Your task to perform on an android device: change notification settings in the gmail app Image 0: 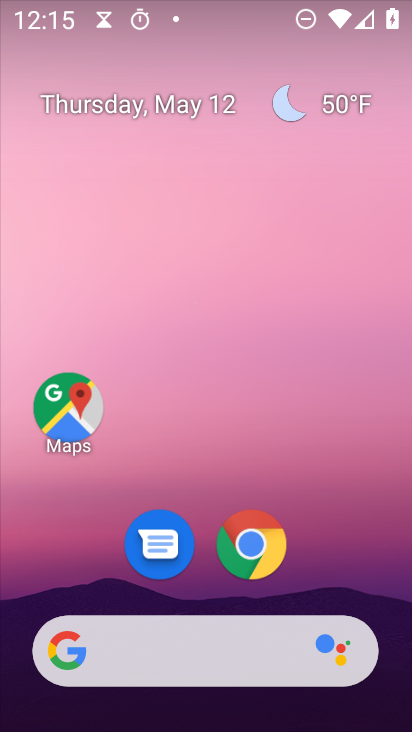
Step 0: drag from (211, 600) to (266, 176)
Your task to perform on an android device: change notification settings in the gmail app Image 1: 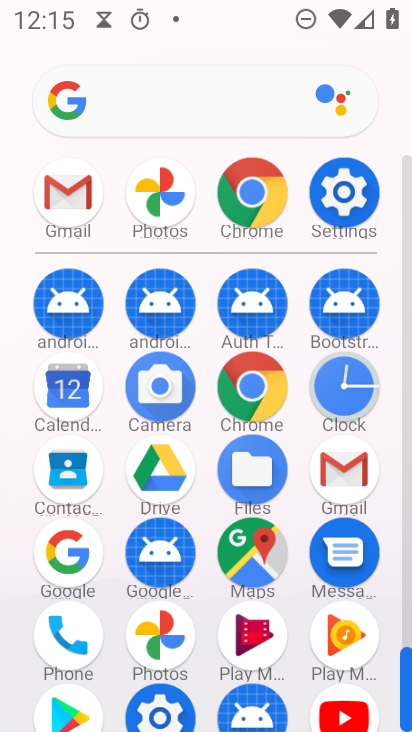
Step 1: click (356, 491)
Your task to perform on an android device: change notification settings in the gmail app Image 2: 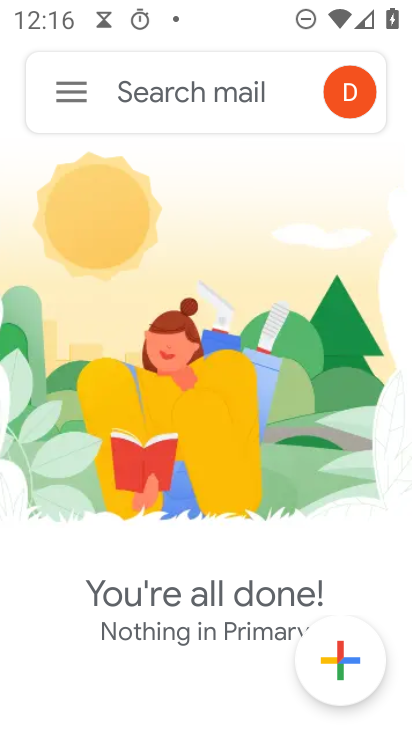
Step 2: click (85, 112)
Your task to perform on an android device: change notification settings in the gmail app Image 3: 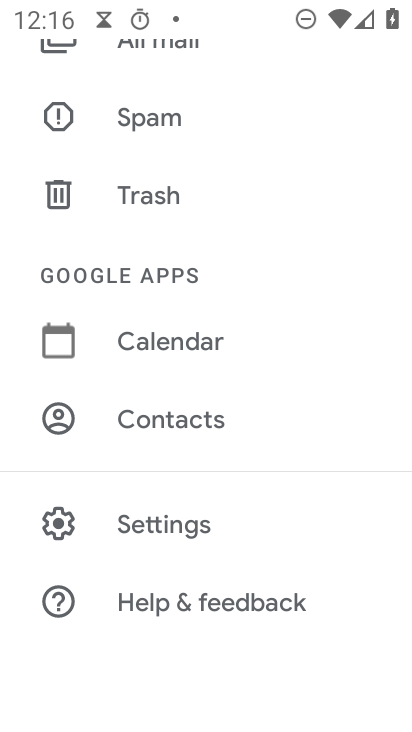
Step 3: click (309, 522)
Your task to perform on an android device: change notification settings in the gmail app Image 4: 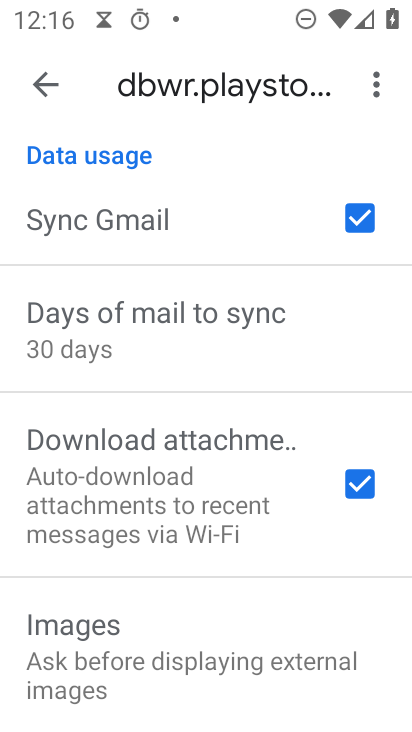
Step 4: drag from (223, 603) to (396, 34)
Your task to perform on an android device: change notification settings in the gmail app Image 5: 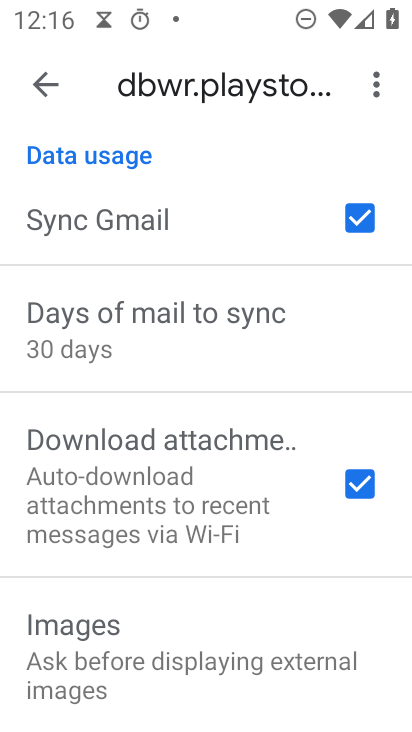
Step 5: drag from (212, 509) to (325, 4)
Your task to perform on an android device: change notification settings in the gmail app Image 6: 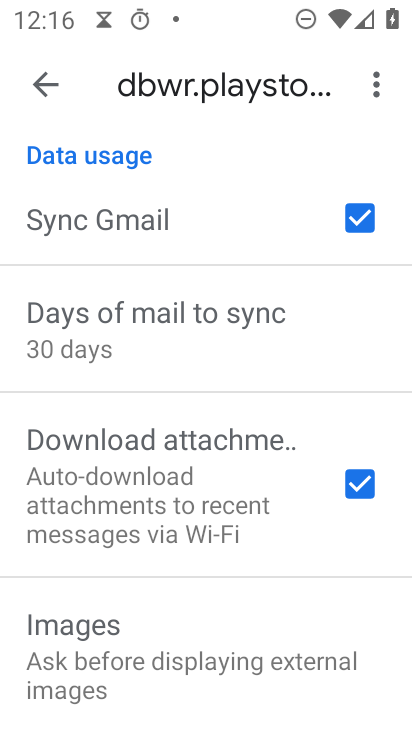
Step 6: drag from (172, 617) to (235, 0)
Your task to perform on an android device: change notification settings in the gmail app Image 7: 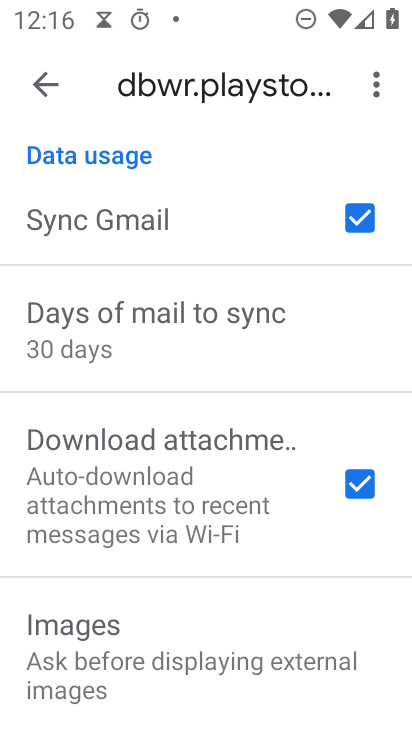
Step 7: drag from (218, 272) to (250, 655)
Your task to perform on an android device: change notification settings in the gmail app Image 8: 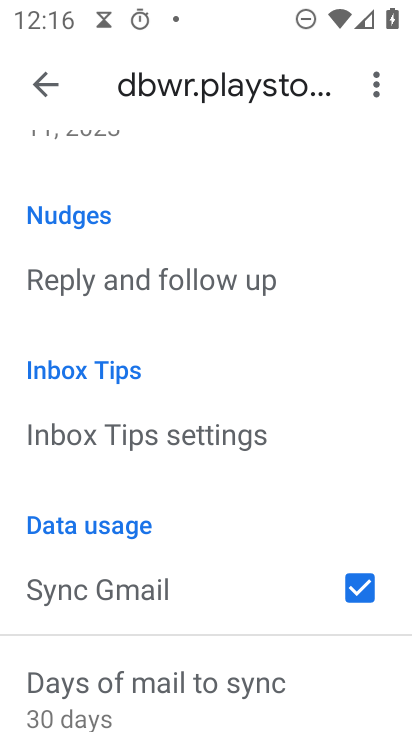
Step 8: drag from (184, 163) to (210, 586)
Your task to perform on an android device: change notification settings in the gmail app Image 9: 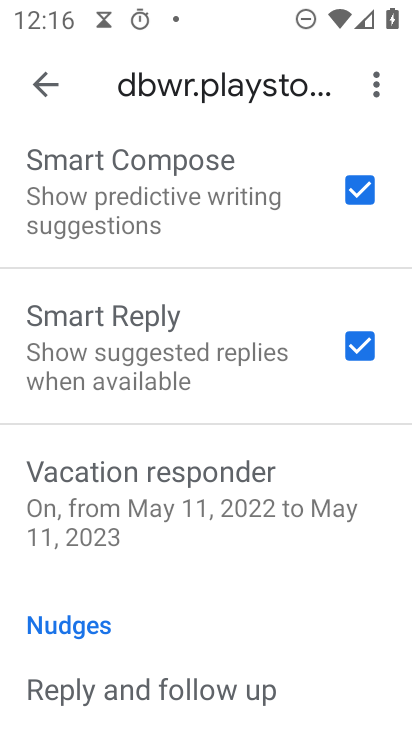
Step 9: drag from (305, 238) to (243, 652)
Your task to perform on an android device: change notification settings in the gmail app Image 10: 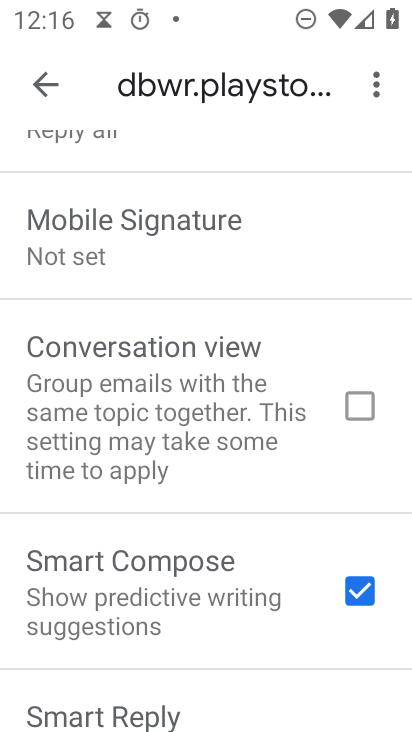
Step 10: drag from (164, 200) to (115, 526)
Your task to perform on an android device: change notification settings in the gmail app Image 11: 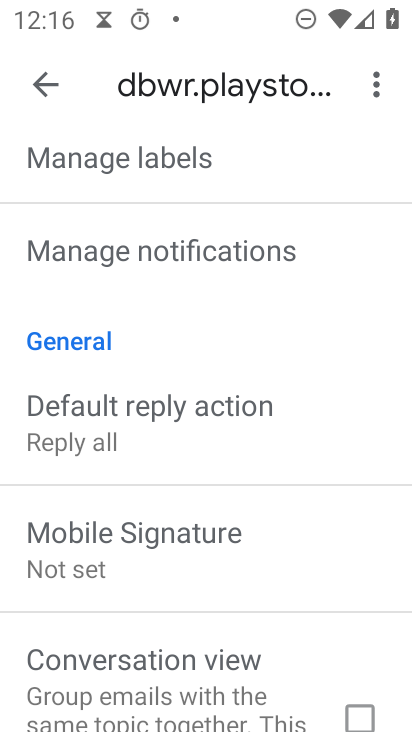
Step 11: click (190, 290)
Your task to perform on an android device: change notification settings in the gmail app Image 12: 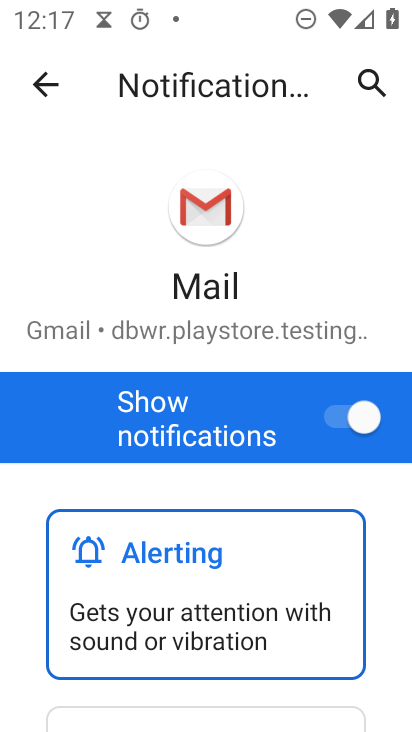
Step 12: click (346, 430)
Your task to perform on an android device: change notification settings in the gmail app Image 13: 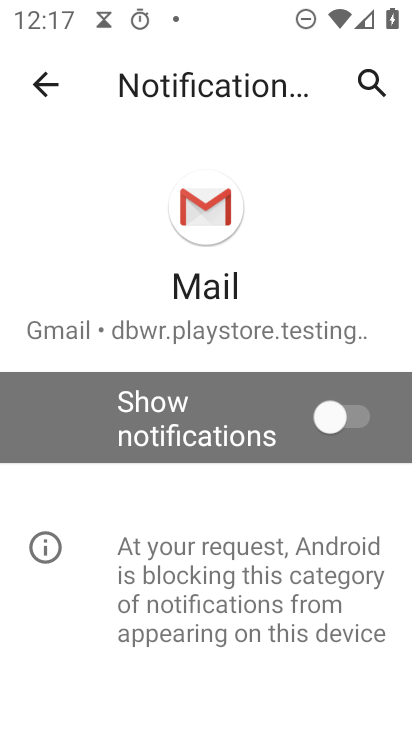
Step 13: task complete